Your task to perform on an android device: check out phone information Image 0: 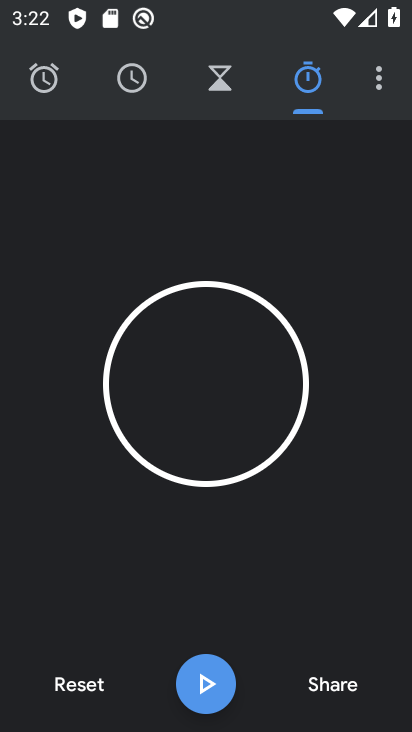
Step 0: press home button
Your task to perform on an android device: check out phone information Image 1: 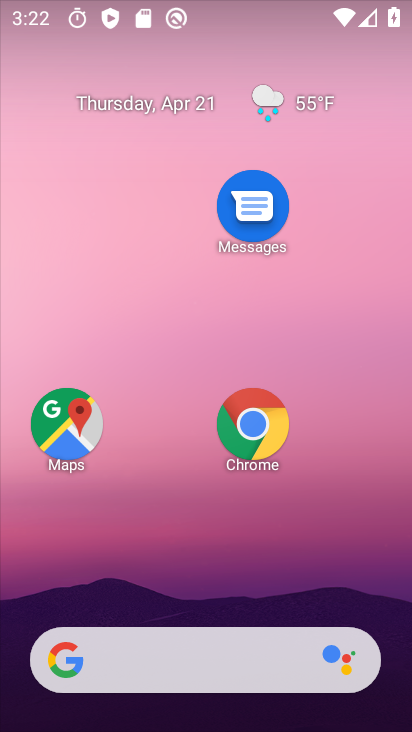
Step 1: drag from (185, 529) to (180, 103)
Your task to perform on an android device: check out phone information Image 2: 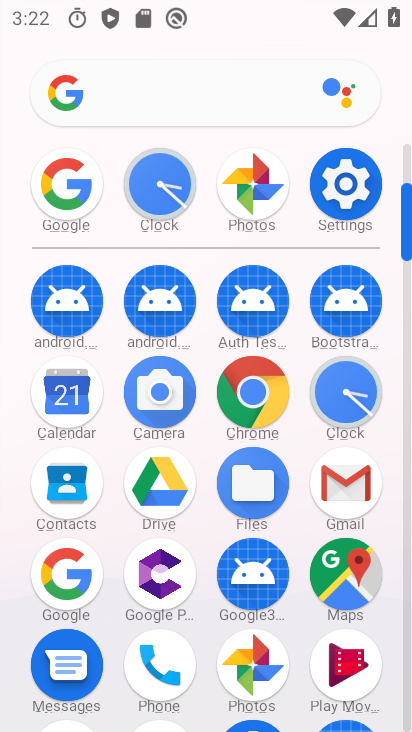
Step 2: click (344, 186)
Your task to perform on an android device: check out phone information Image 3: 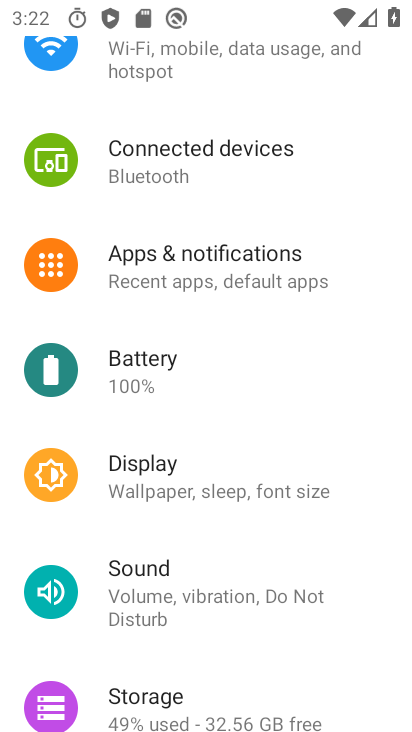
Step 3: drag from (226, 613) to (194, 221)
Your task to perform on an android device: check out phone information Image 4: 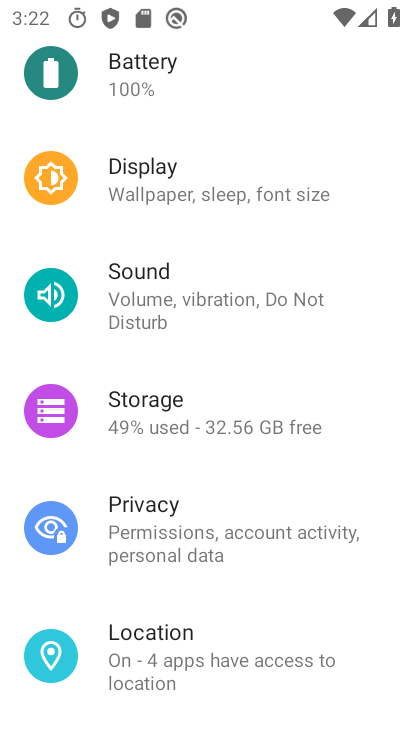
Step 4: drag from (335, 443) to (265, 97)
Your task to perform on an android device: check out phone information Image 5: 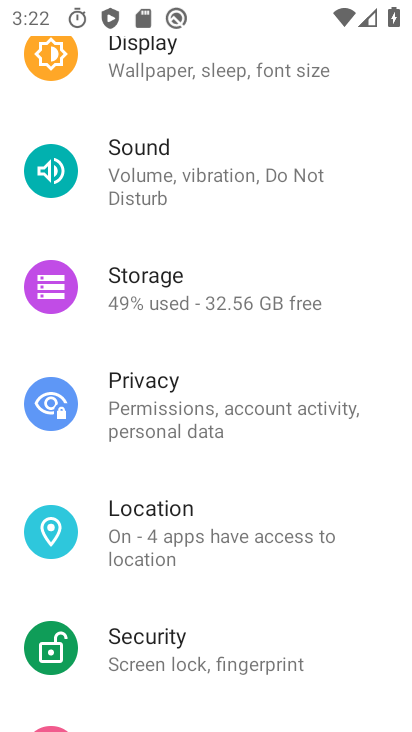
Step 5: drag from (194, 658) to (266, 59)
Your task to perform on an android device: check out phone information Image 6: 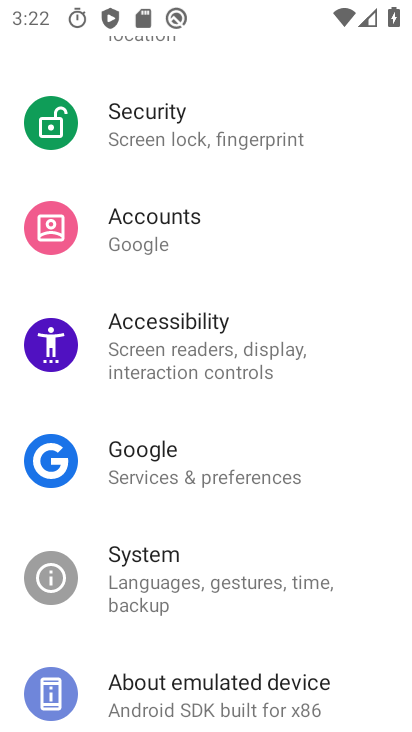
Step 6: drag from (165, 576) to (181, 178)
Your task to perform on an android device: check out phone information Image 7: 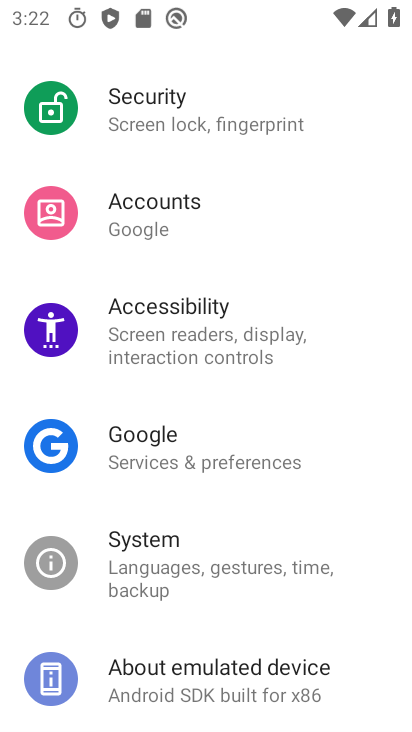
Step 7: click (168, 676)
Your task to perform on an android device: check out phone information Image 8: 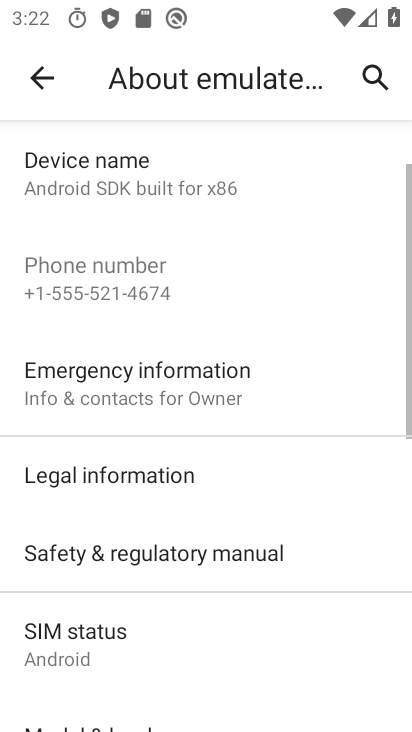
Step 8: drag from (142, 589) to (116, 29)
Your task to perform on an android device: check out phone information Image 9: 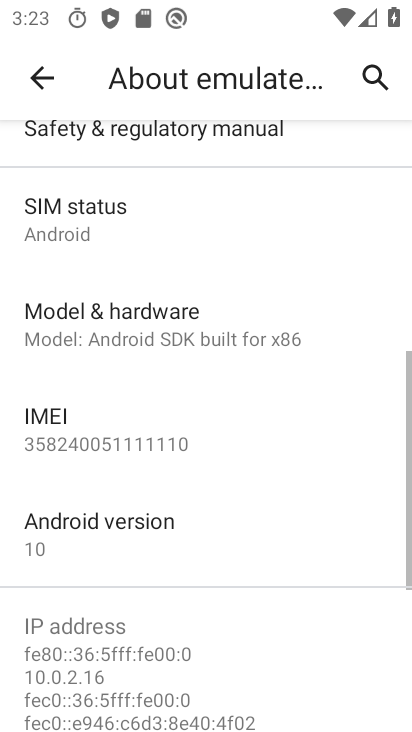
Step 9: drag from (222, 603) to (218, 62)
Your task to perform on an android device: check out phone information Image 10: 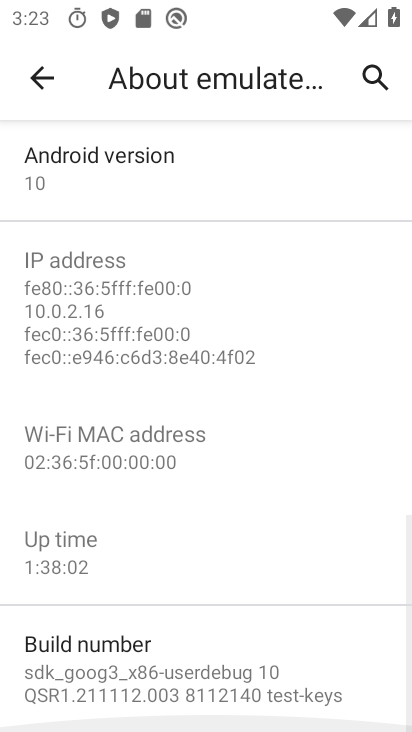
Step 10: drag from (203, 608) to (189, 191)
Your task to perform on an android device: check out phone information Image 11: 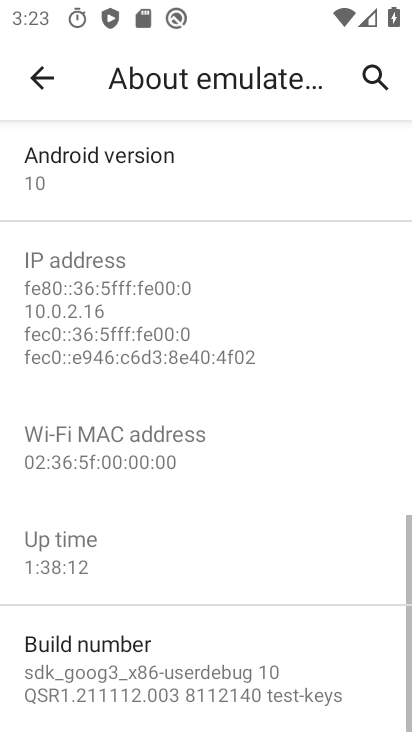
Step 11: drag from (234, 599) to (248, 269)
Your task to perform on an android device: check out phone information Image 12: 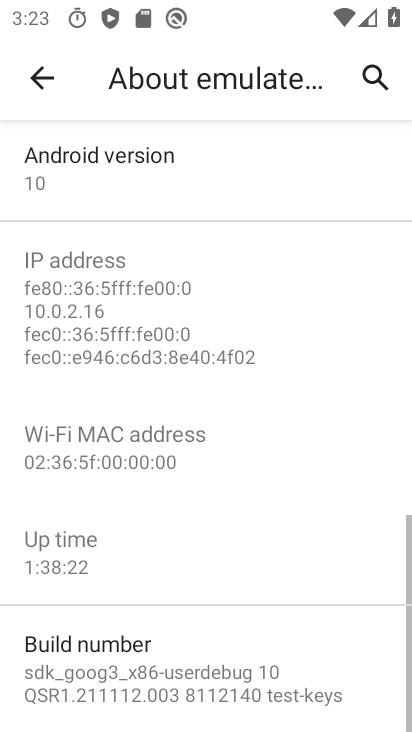
Step 12: click (222, 604)
Your task to perform on an android device: check out phone information Image 13: 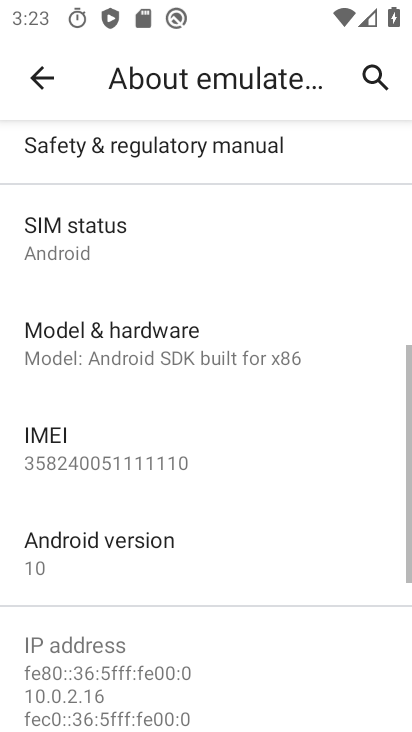
Step 13: task complete